Your task to perform on an android device: create a new album in the google photos Image 0: 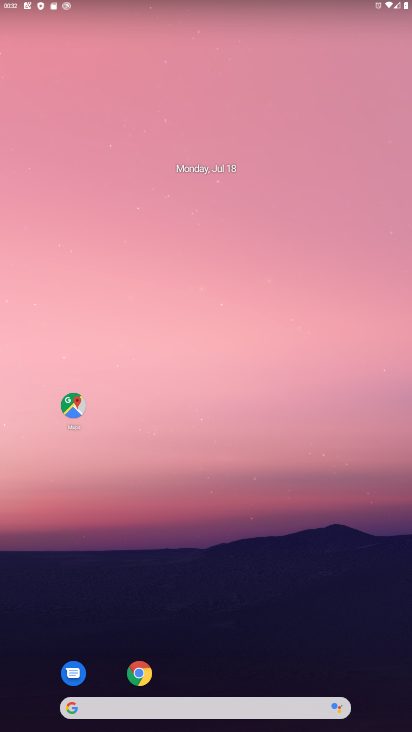
Step 0: drag from (259, 667) to (233, 101)
Your task to perform on an android device: create a new album in the google photos Image 1: 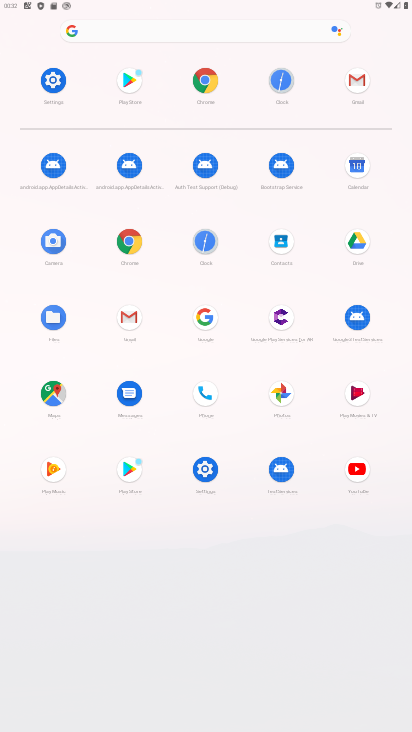
Step 1: click (269, 392)
Your task to perform on an android device: create a new album in the google photos Image 2: 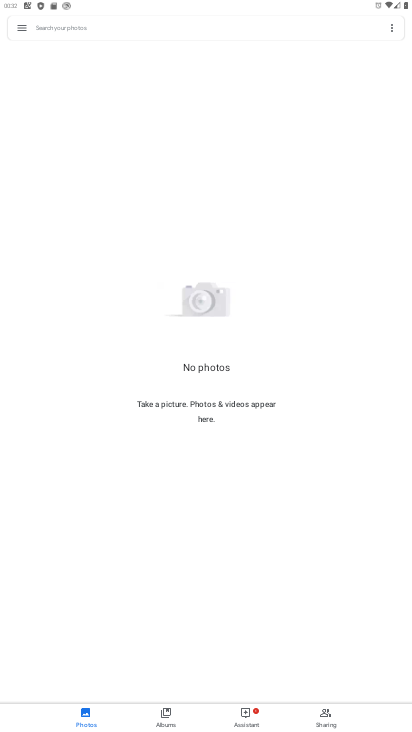
Step 2: task complete